Your task to perform on an android device: check google app version Image 0: 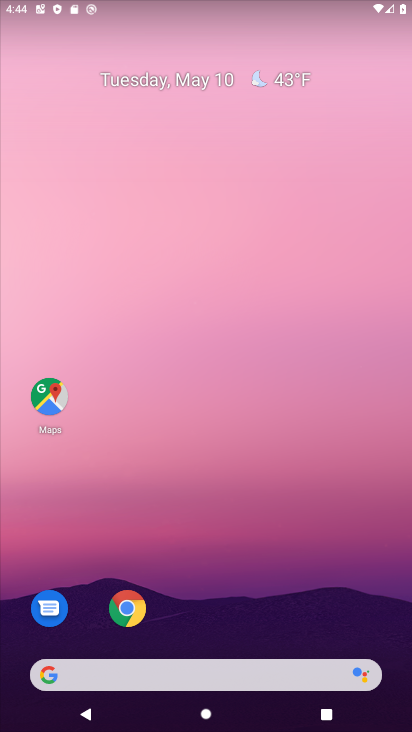
Step 0: drag from (193, 620) to (281, 24)
Your task to perform on an android device: check google app version Image 1: 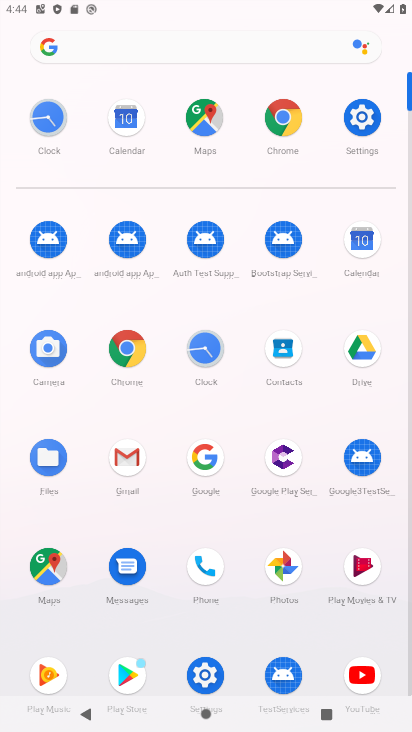
Step 1: click (206, 456)
Your task to perform on an android device: check google app version Image 2: 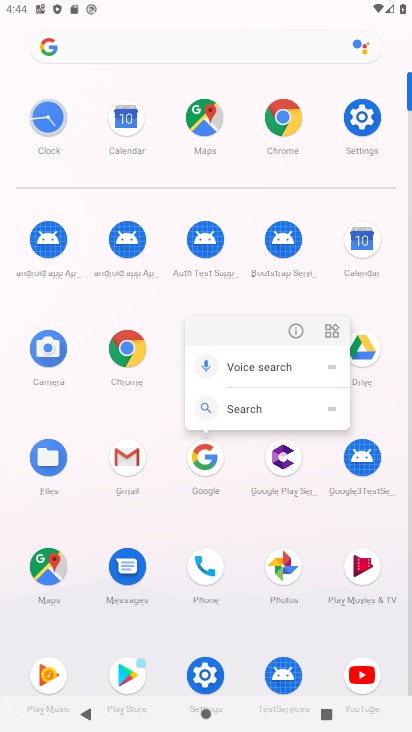
Step 2: click (201, 462)
Your task to perform on an android device: check google app version Image 3: 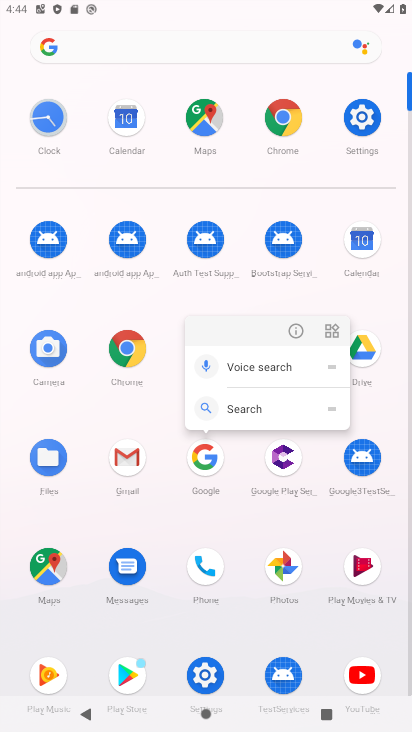
Step 3: click (294, 332)
Your task to perform on an android device: check google app version Image 4: 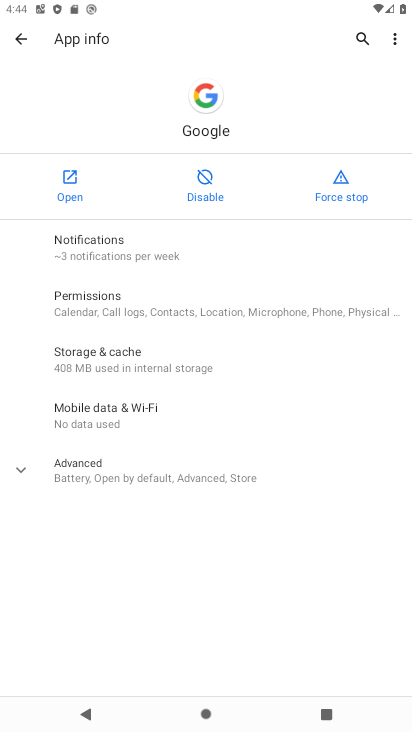
Step 4: task complete